Your task to perform on an android device: Show me the alarms in the clock app Image 0: 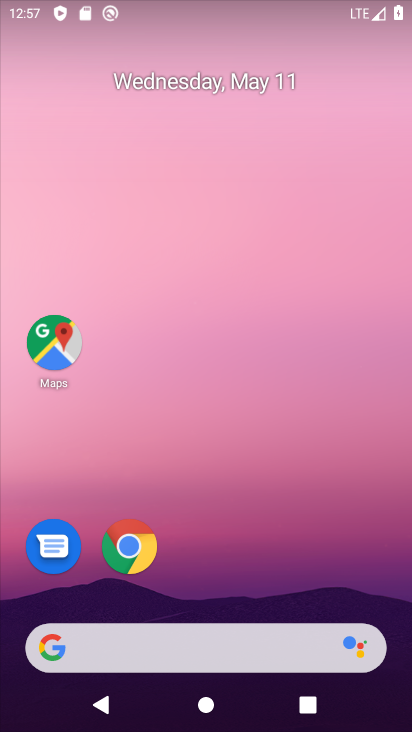
Step 0: press home button
Your task to perform on an android device: Show me the alarms in the clock app Image 1: 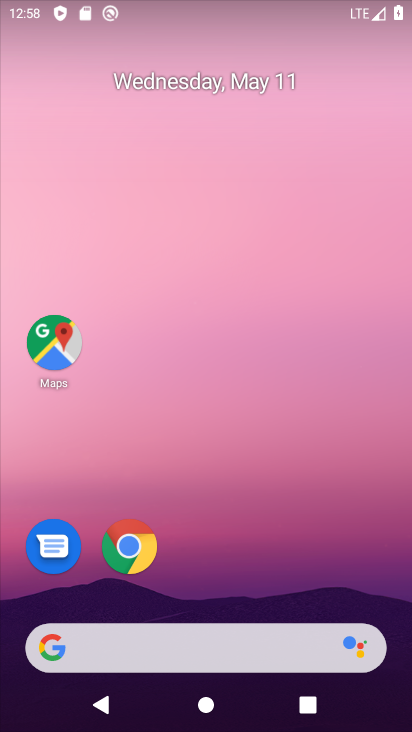
Step 1: drag from (259, 649) to (274, 276)
Your task to perform on an android device: Show me the alarms in the clock app Image 2: 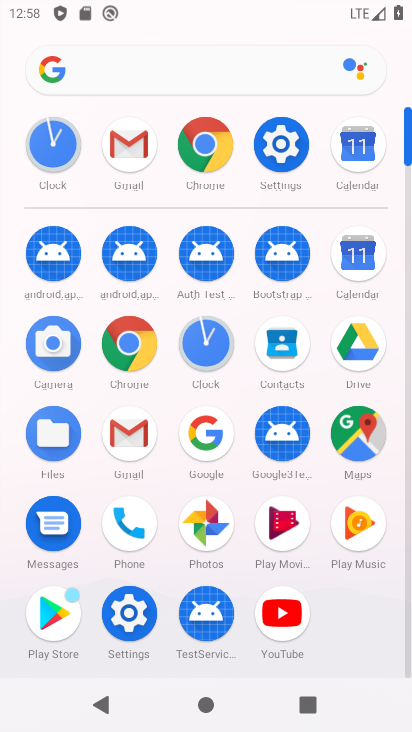
Step 2: click (194, 336)
Your task to perform on an android device: Show me the alarms in the clock app Image 3: 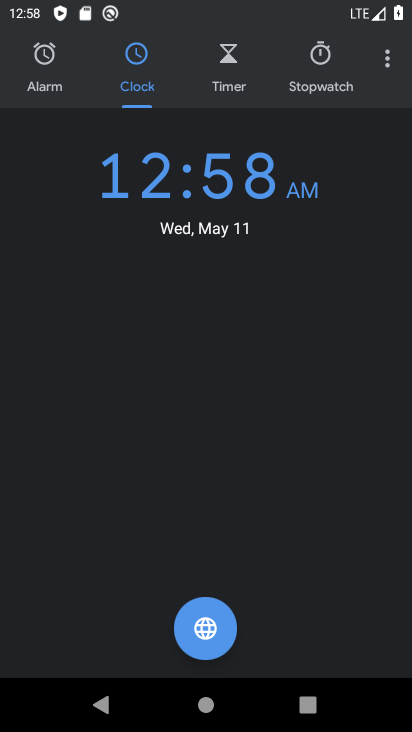
Step 3: click (383, 54)
Your task to perform on an android device: Show me the alarms in the clock app Image 4: 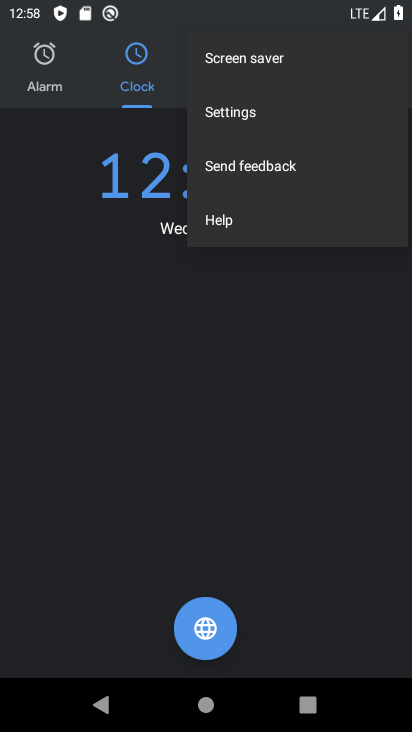
Step 4: click (65, 82)
Your task to perform on an android device: Show me the alarms in the clock app Image 5: 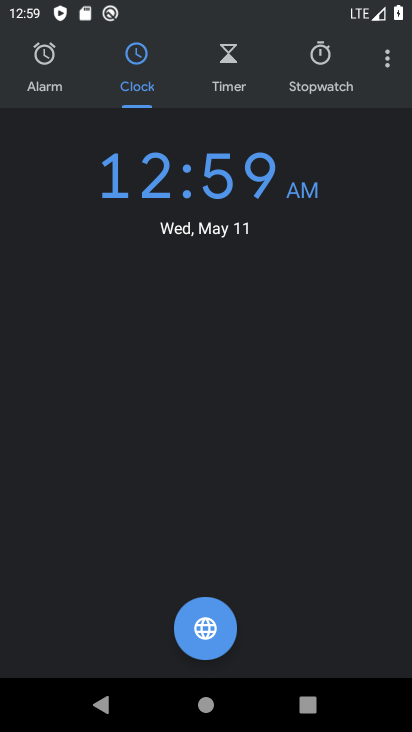
Step 5: click (59, 94)
Your task to perform on an android device: Show me the alarms in the clock app Image 6: 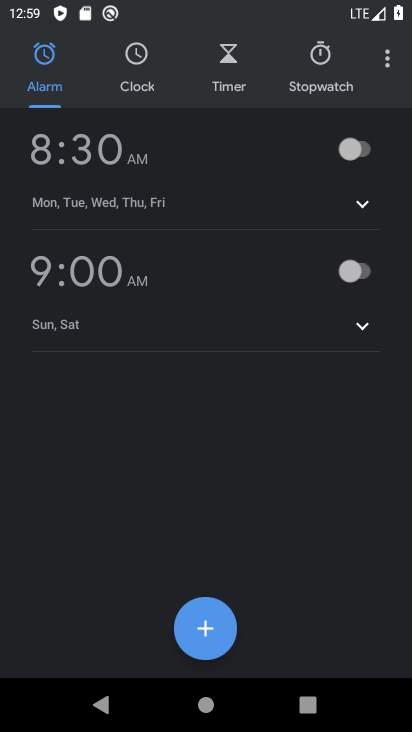
Step 6: click (165, 175)
Your task to perform on an android device: Show me the alarms in the clock app Image 7: 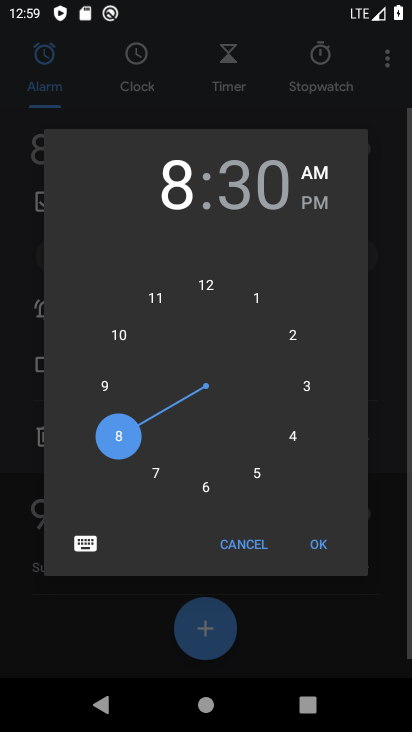
Step 7: task complete